Your task to perform on an android device: change keyboard looks Image 0: 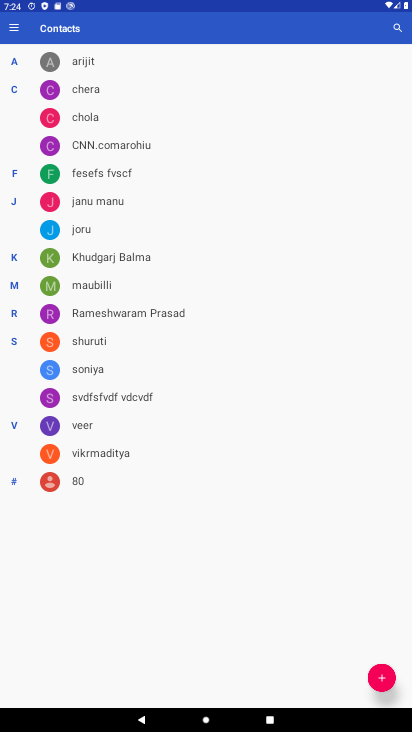
Step 0: press home button
Your task to perform on an android device: change keyboard looks Image 1: 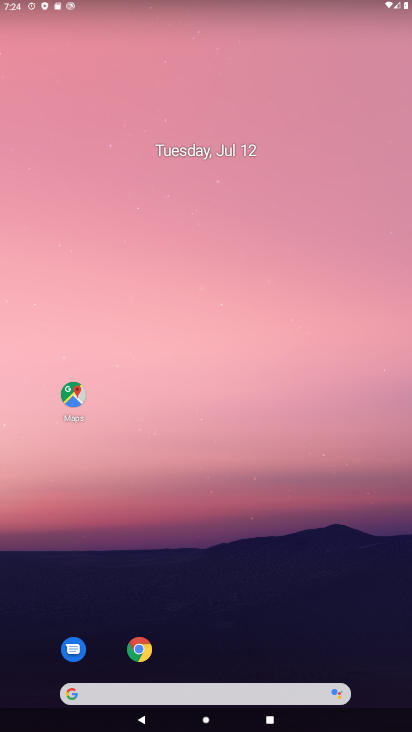
Step 1: drag from (187, 689) to (167, 99)
Your task to perform on an android device: change keyboard looks Image 2: 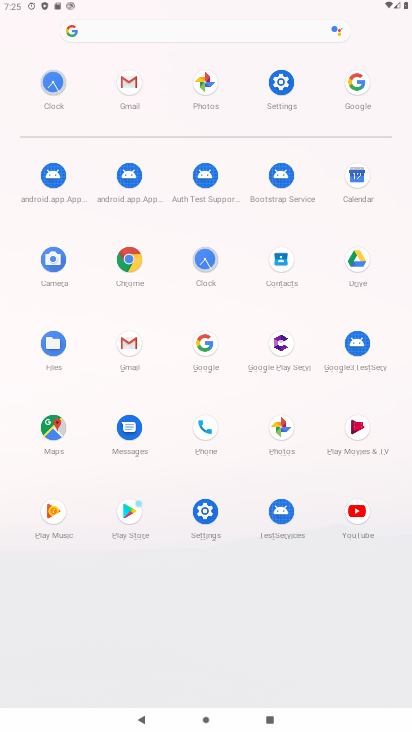
Step 2: click (282, 82)
Your task to perform on an android device: change keyboard looks Image 3: 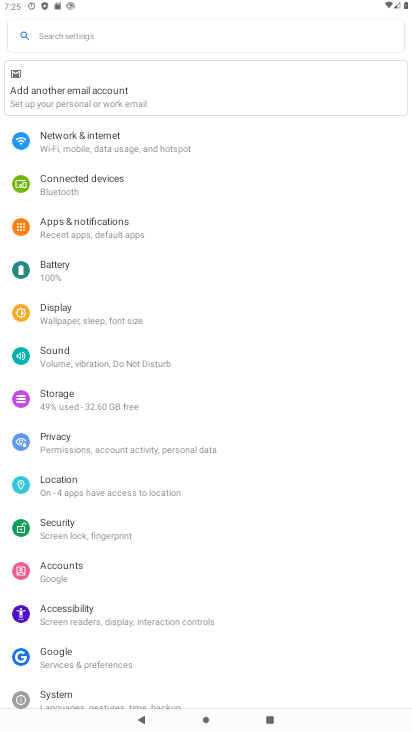
Step 3: click (60, 694)
Your task to perform on an android device: change keyboard looks Image 4: 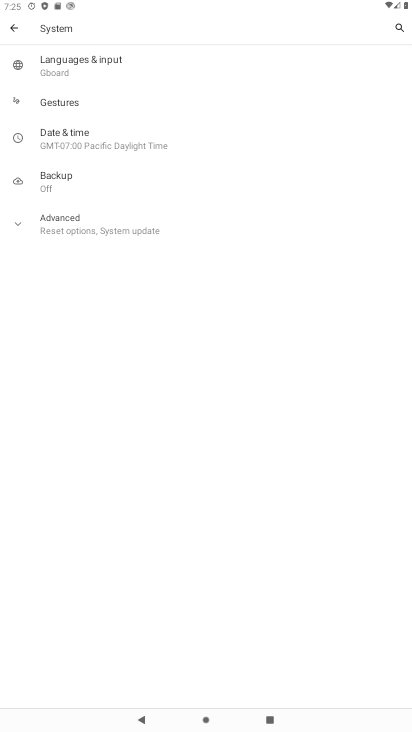
Step 4: click (73, 68)
Your task to perform on an android device: change keyboard looks Image 5: 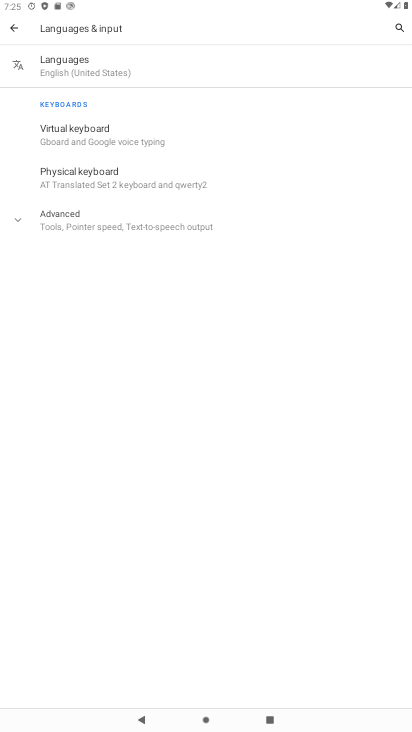
Step 5: click (81, 136)
Your task to perform on an android device: change keyboard looks Image 6: 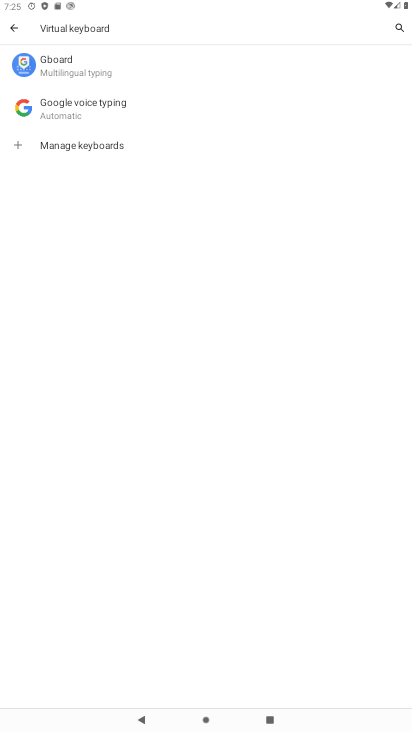
Step 6: click (73, 74)
Your task to perform on an android device: change keyboard looks Image 7: 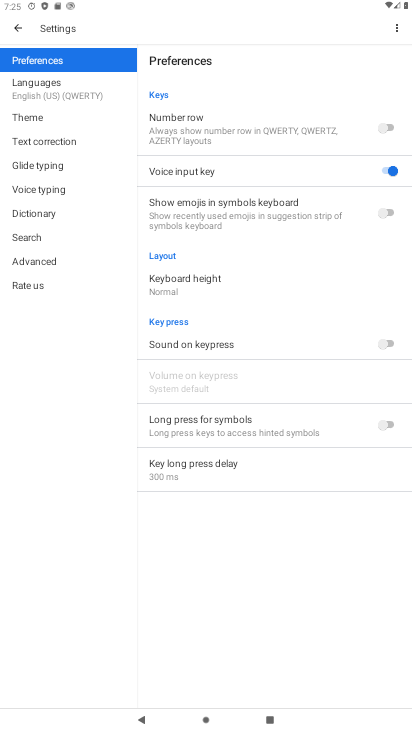
Step 7: click (36, 121)
Your task to perform on an android device: change keyboard looks Image 8: 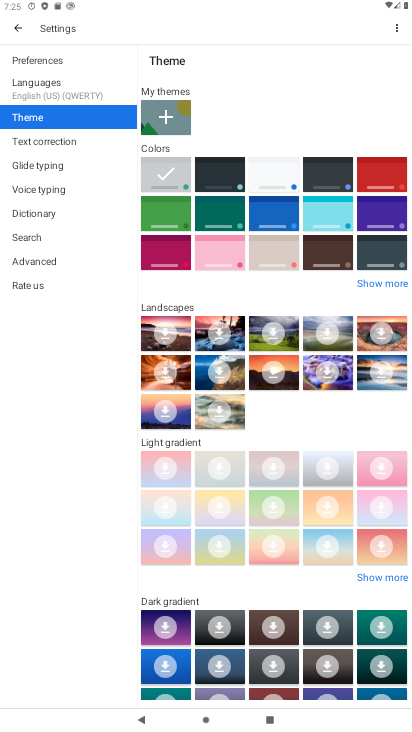
Step 8: click (319, 211)
Your task to perform on an android device: change keyboard looks Image 9: 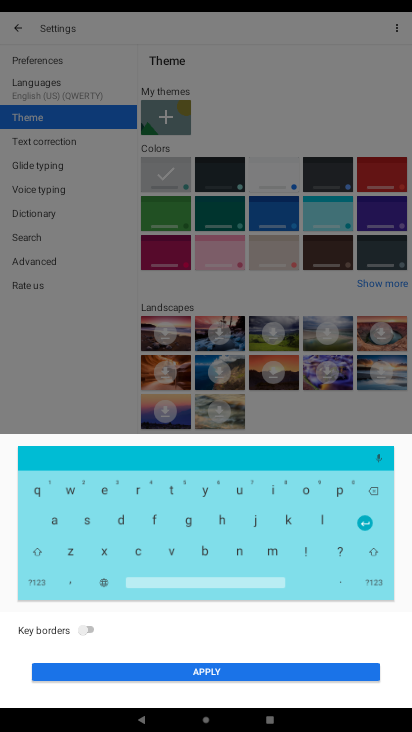
Step 9: click (87, 630)
Your task to perform on an android device: change keyboard looks Image 10: 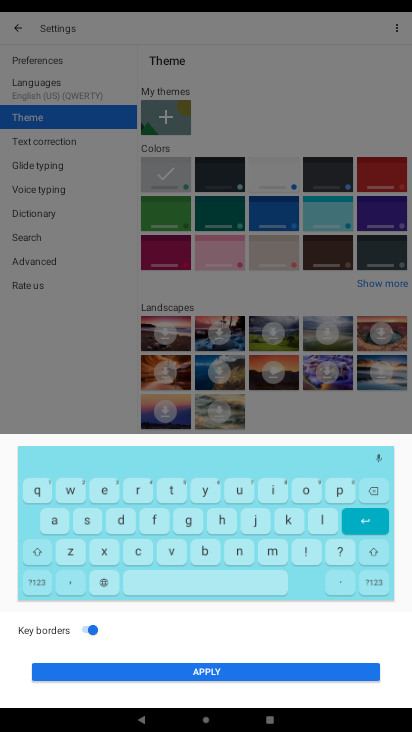
Step 10: click (211, 668)
Your task to perform on an android device: change keyboard looks Image 11: 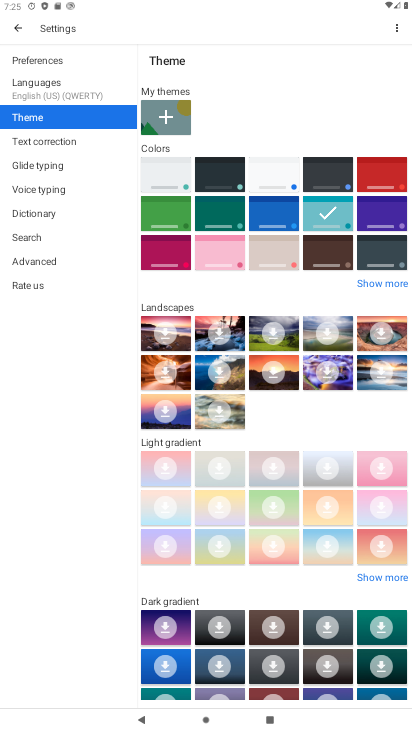
Step 11: task complete